Your task to perform on an android device: change alarm snooze length Image 0: 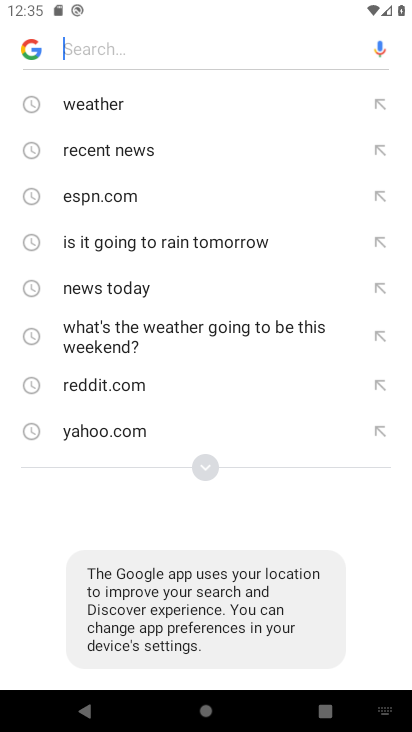
Step 0: press home button
Your task to perform on an android device: change alarm snooze length Image 1: 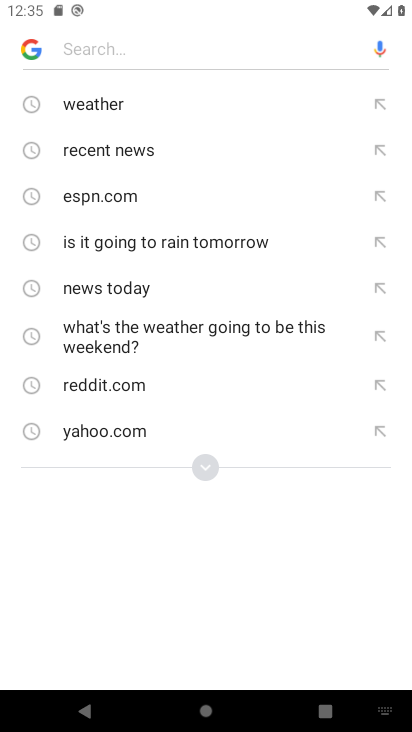
Step 1: press home button
Your task to perform on an android device: change alarm snooze length Image 2: 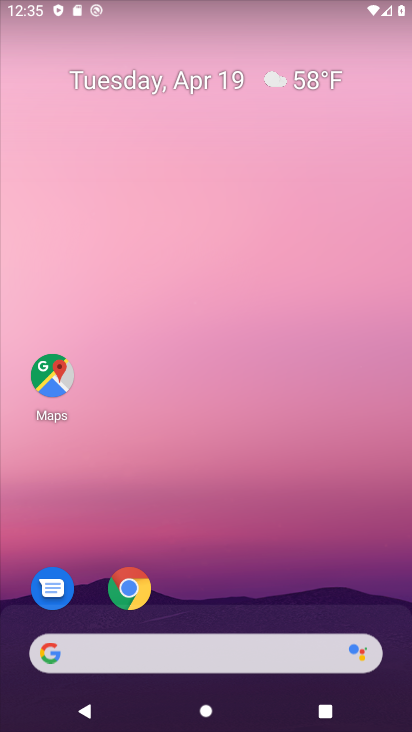
Step 2: drag from (217, 249) to (216, 186)
Your task to perform on an android device: change alarm snooze length Image 3: 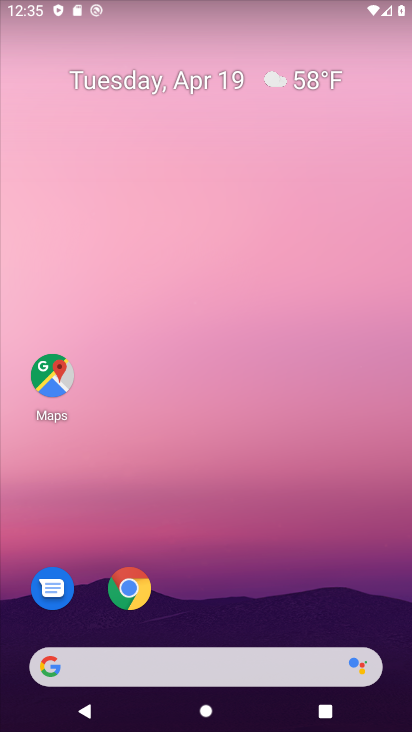
Step 3: click (204, 184)
Your task to perform on an android device: change alarm snooze length Image 4: 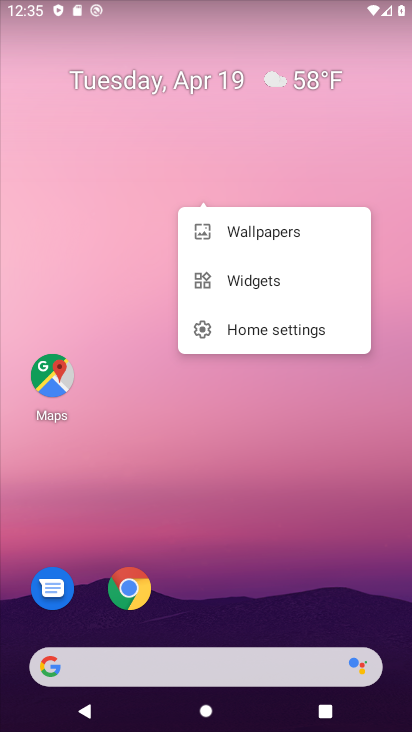
Step 4: drag from (190, 611) to (158, 196)
Your task to perform on an android device: change alarm snooze length Image 5: 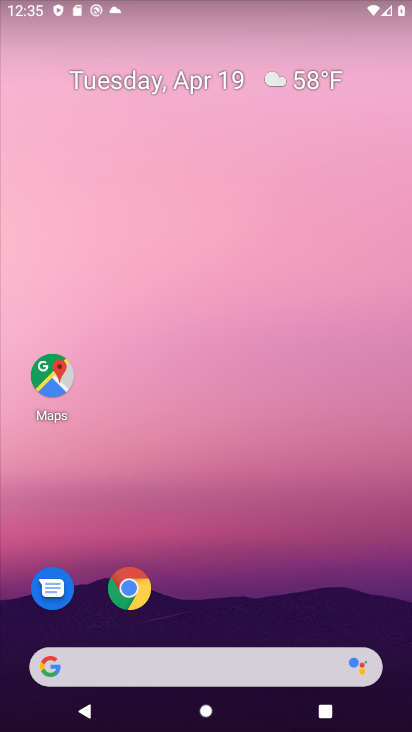
Step 5: click (226, 218)
Your task to perform on an android device: change alarm snooze length Image 6: 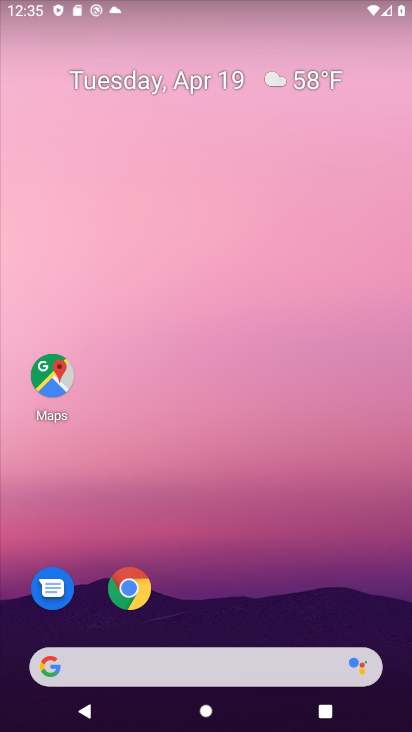
Step 6: drag from (207, 413) to (207, 128)
Your task to perform on an android device: change alarm snooze length Image 7: 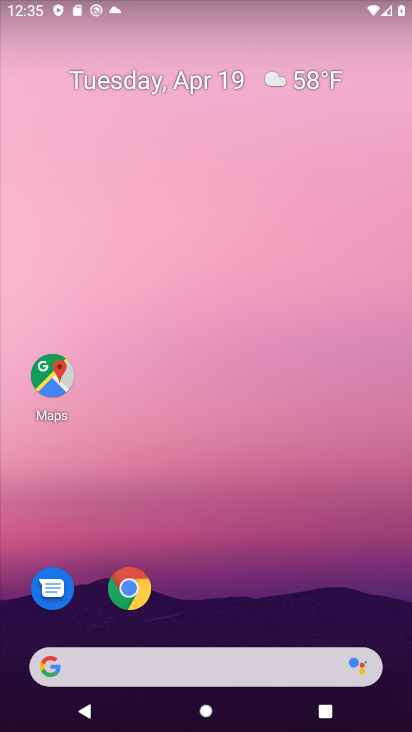
Step 7: drag from (204, 634) to (186, 128)
Your task to perform on an android device: change alarm snooze length Image 8: 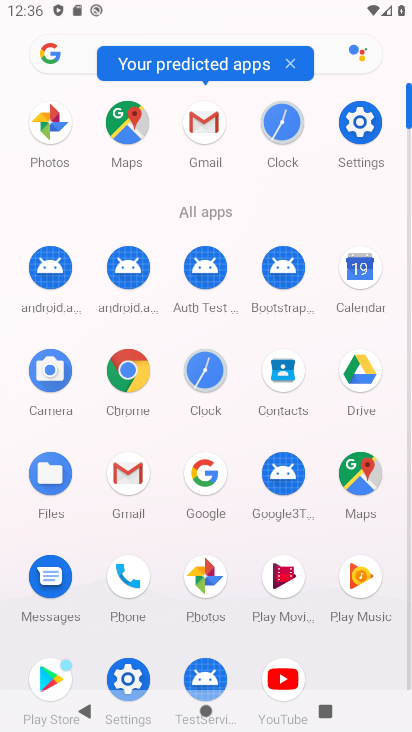
Step 8: click (292, 127)
Your task to perform on an android device: change alarm snooze length Image 9: 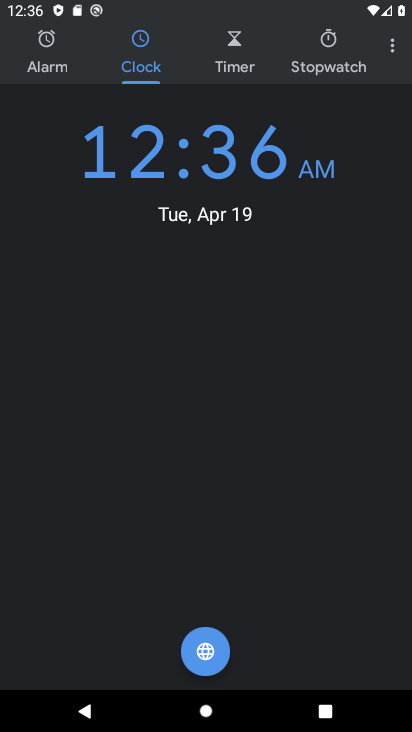
Step 9: click (398, 54)
Your task to perform on an android device: change alarm snooze length Image 10: 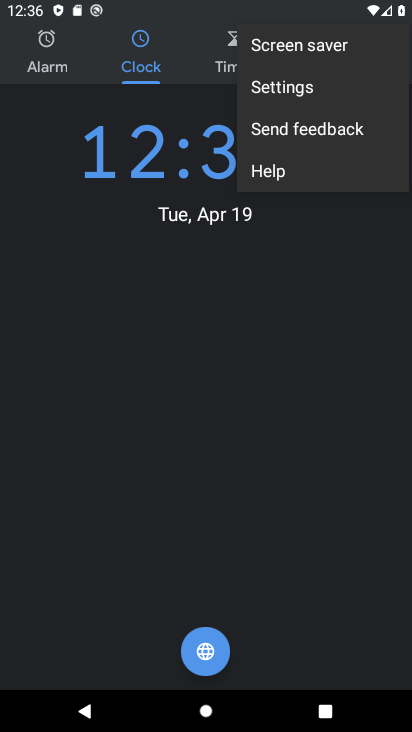
Step 10: click (311, 82)
Your task to perform on an android device: change alarm snooze length Image 11: 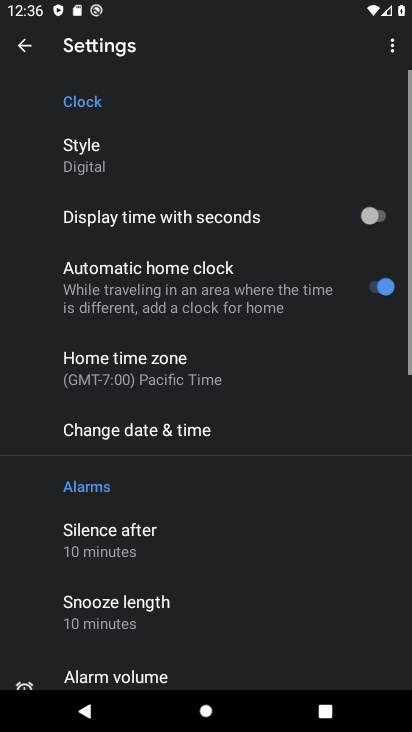
Step 11: drag from (257, 583) to (264, 235)
Your task to perform on an android device: change alarm snooze length Image 12: 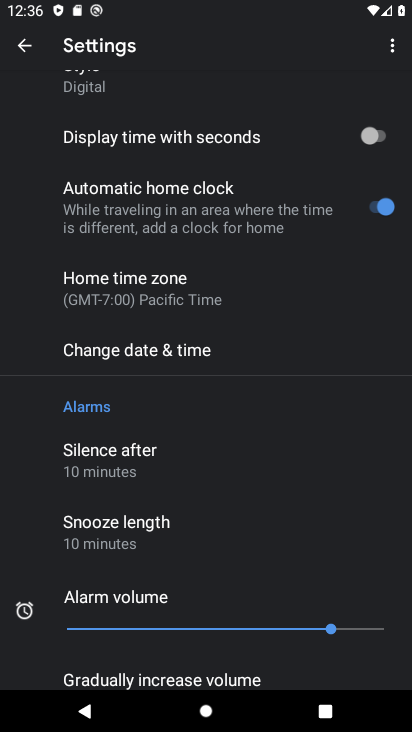
Step 12: click (173, 512)
Your task to perform on an android device: change alarm snooze length Image 13: 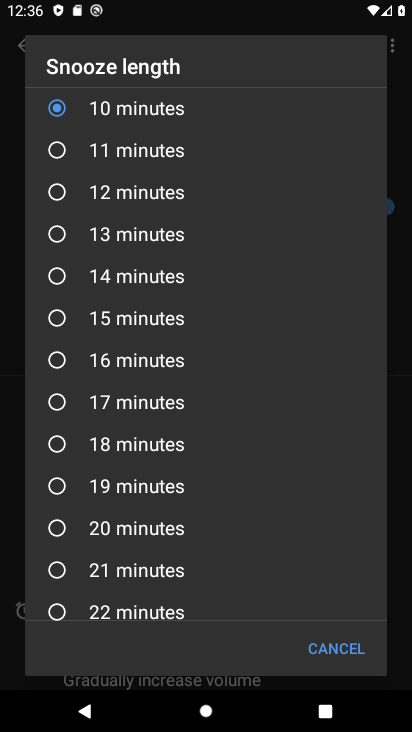
Step 13: click (152, 530)
Your task to perform on an android device: change alarm snooze length Image 14: 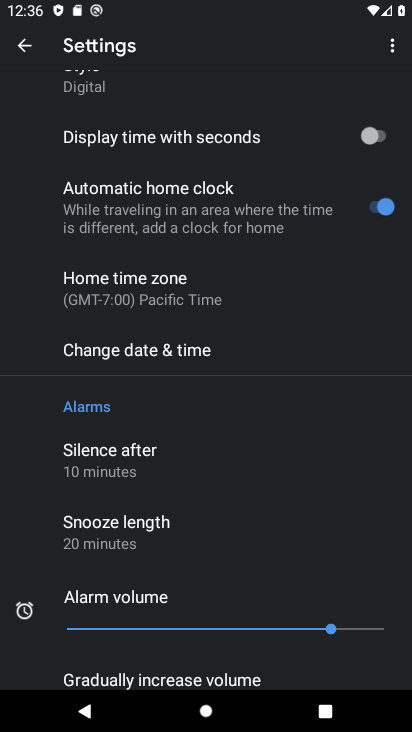
Step 14: task complete